Your task to perform on an android device: Go to Wikipedia Image 0: 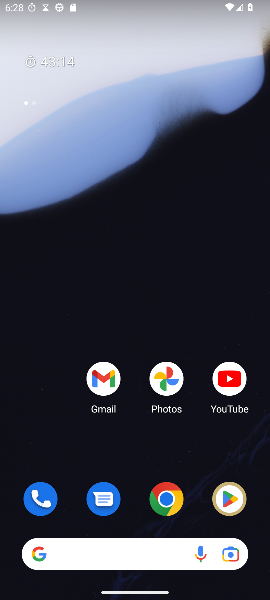
Step 0: drag from (186, 502) to (233, 127)
Your task to perform on an android device: Go to Wikipedia Image 1: 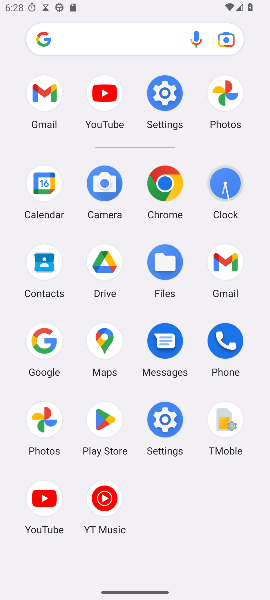
Step 1: click (163, 190)
Your task to perform on an android device: Go to Wikipedia Image 2: 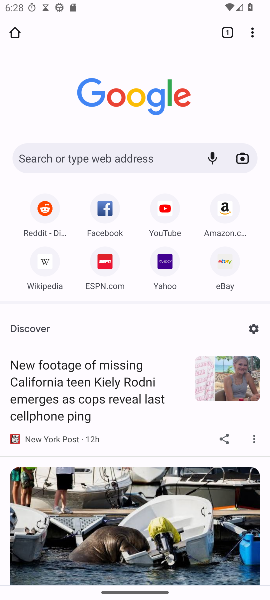
Step 2: click (45, 264)
Your task to perform on an android device: Go to Wikipedia Image 3: 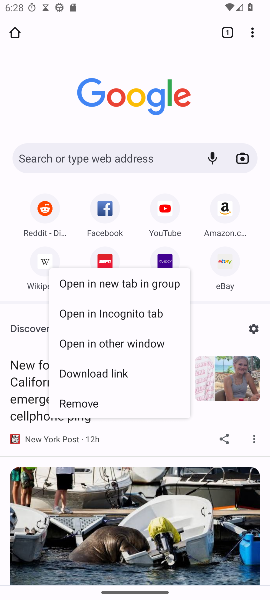
Step 3: click (38, 257)
Your task to perform on an android device: Go to Wikipedia Image 4: 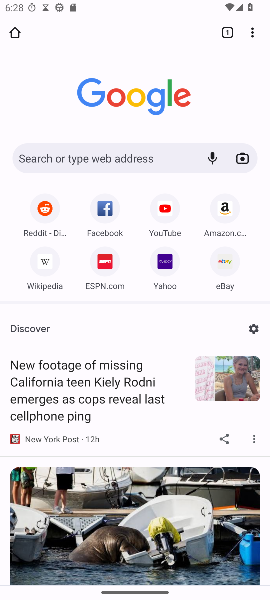
Step 4: click (40, 270)
Your task to perform on an android device: Go to Wikipedia Image 5: 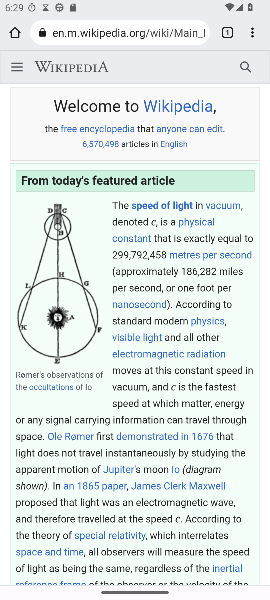
Step 5: task complete